Your task to perform on an android device: turn on wifi Image 0: 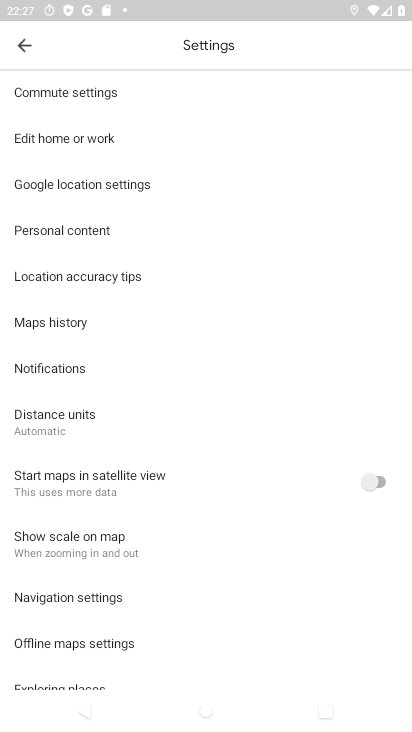
Step 0: press home button
Your task to perform on an android device: turn on wifi Image 1: 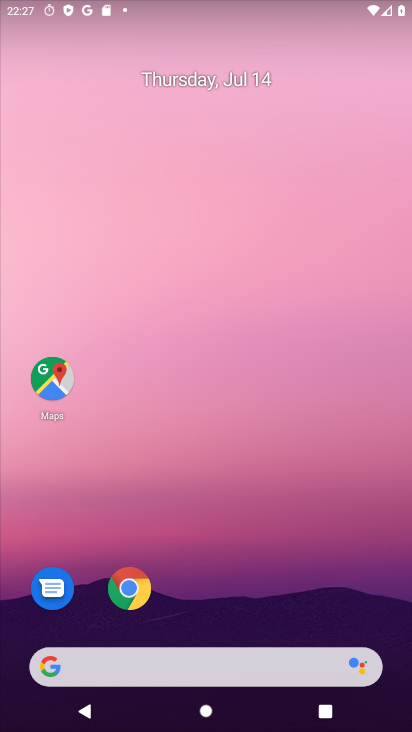
Step 1: drag from (209, 638) to (262, 62)
Your task to perform on an android device: turn on wifi Image 2: 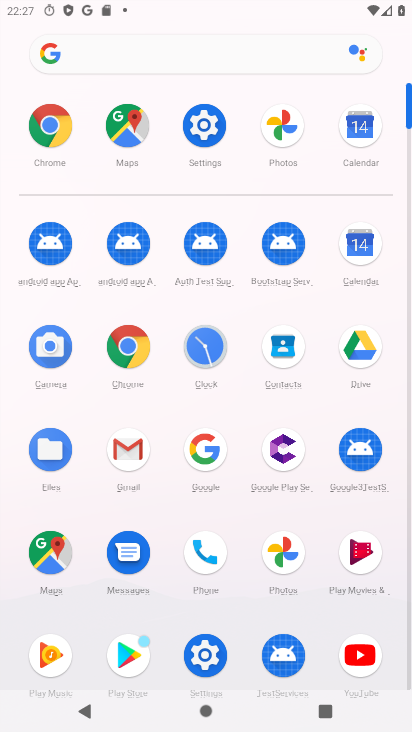
Step 2: click (208, 643)
Your task to perform on an android device: turn on wifi Image 3: 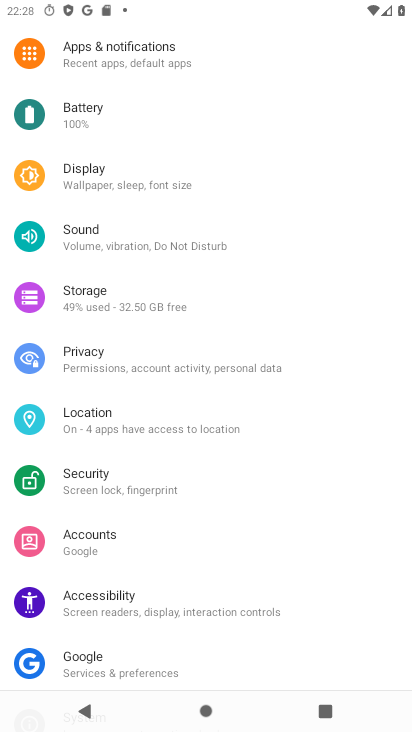
Step 3: drag from (163, 57) to (203, 488)
Your task to perform on an android device: turn on wifi Image 4: 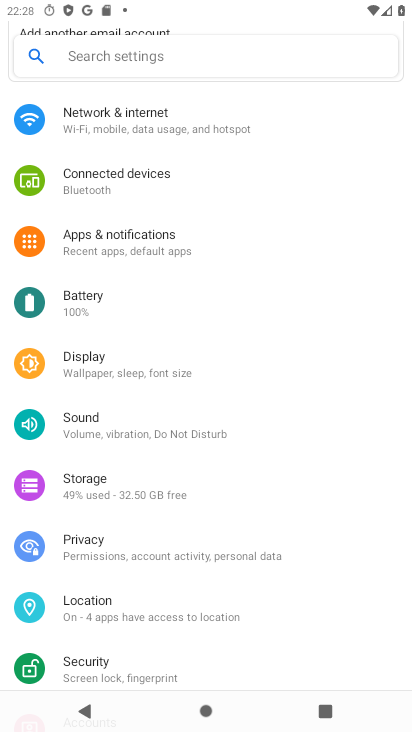
Step 4: click (148, 119)
Your task to perform on an android device: turn on wifi Image 5: 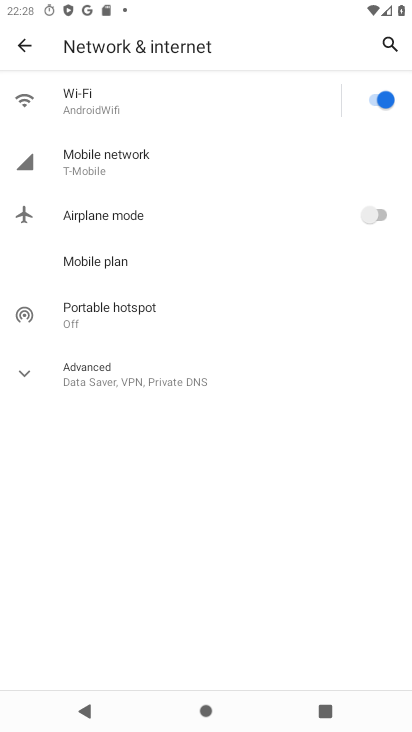
Step 5: task complete